Your task to perform on an android device: Go to Wikipedia Image 0: 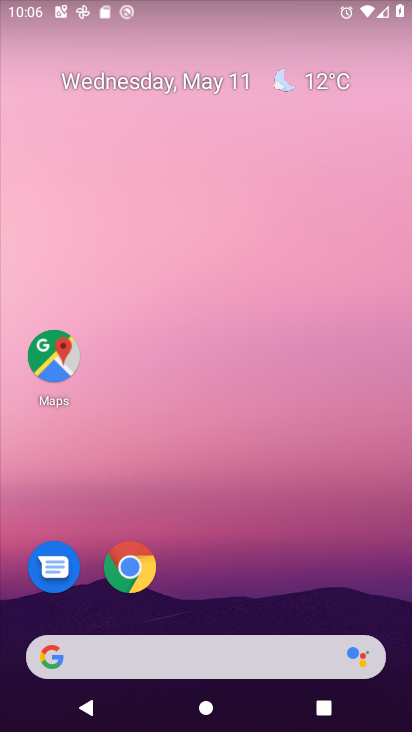
Step 0: click (131, 567)
Your task to perform on an android device: Go to Wikipedia Image 1: 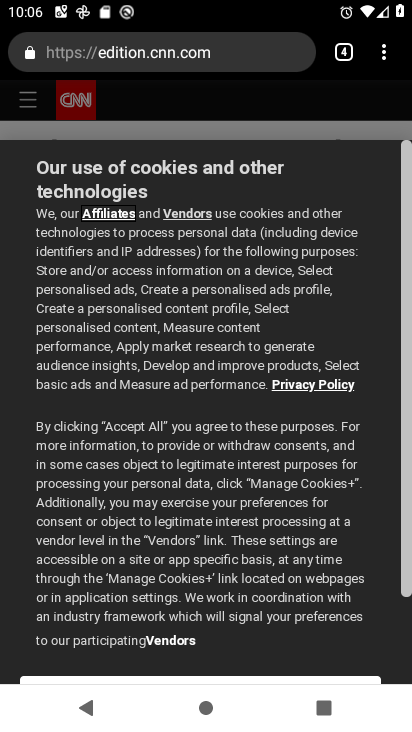
Step 1: click (356, 62)
Your task to perform on an android device: Go to Wikipedia Image 2: 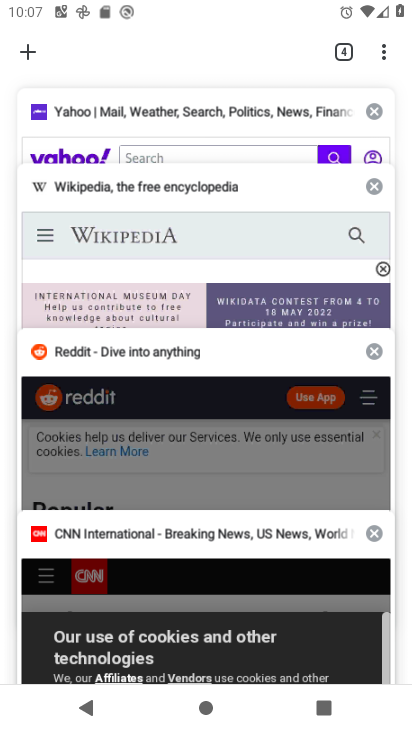
Step 2: click (30, 55)
Your task to perform on an android device: Go to Wikipedia Image 3: 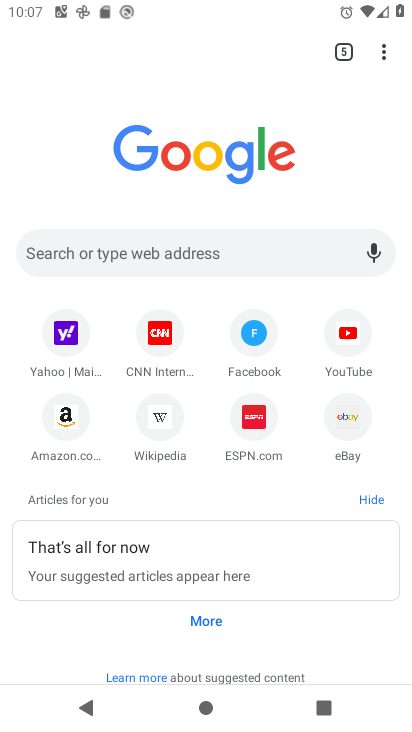
Step 3: click (156, 414)
Your task to perform on an android device: Go to Wikipedia Image 4: 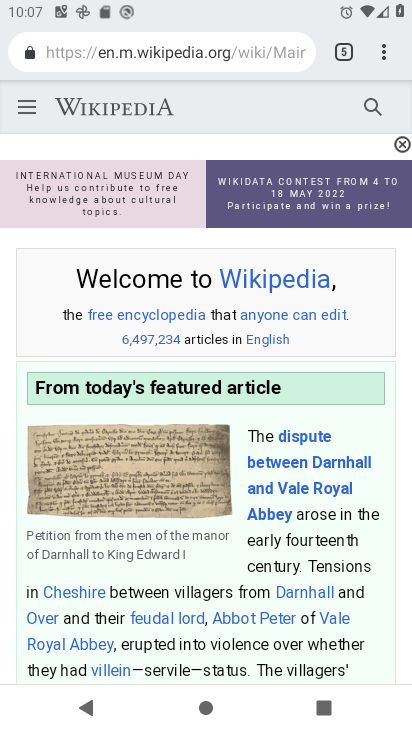
Step 4: task complete